Your task to perform on an android device: Open settings Image 0: 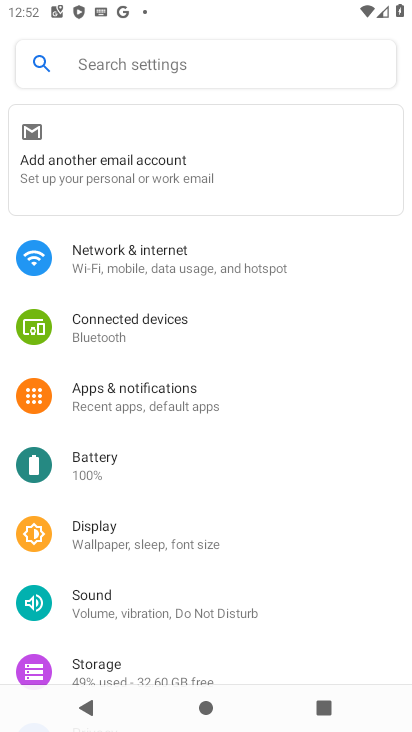
Step 0: task complete